Your task to perform on an android device: turn off notifications in google photos Image 0: 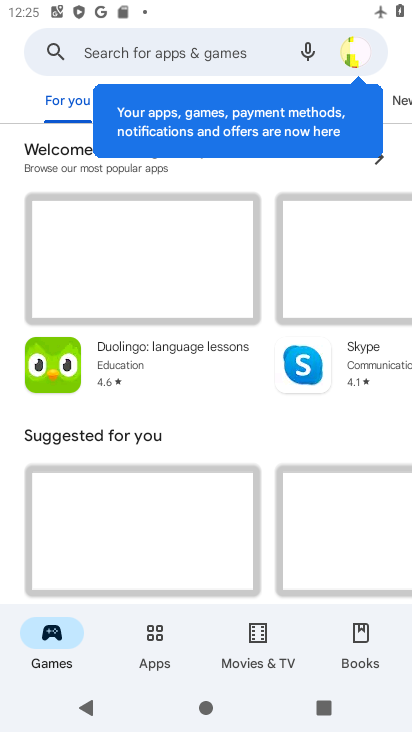
Step 0: press home button
Your task to perform on an android device: turn off notifications in google photos Image 1: 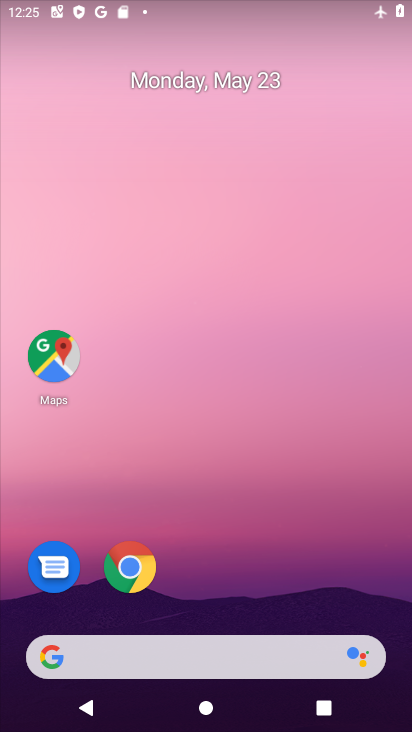
Step 1: drag from (219, 617) to (274, 123)
Your task to perform on an android device: turn off notifications in google photos Image 2: 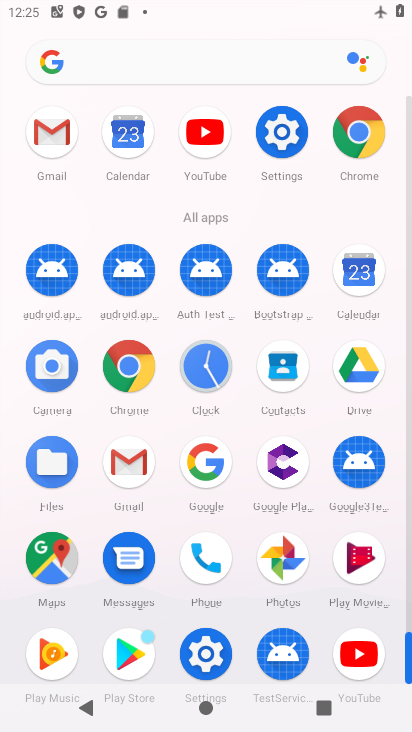
Step 2: click (295, 573)
Your task to perform on an android device: turn off notifications in google photos Image 3: 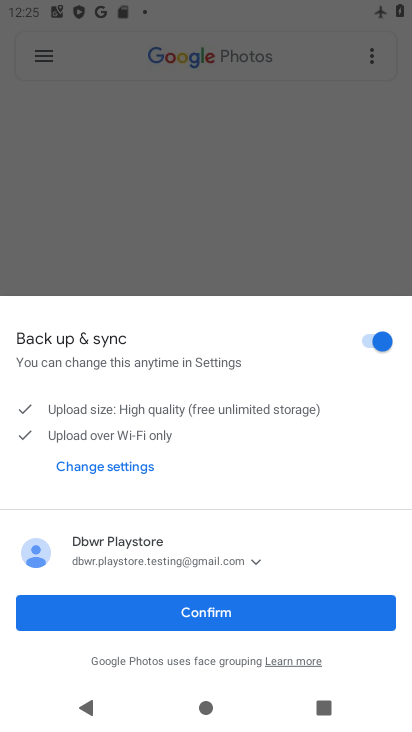
Step 3: click (289, 611)
Your task to perform on an android device: turn off notifications in google photos Image 4: 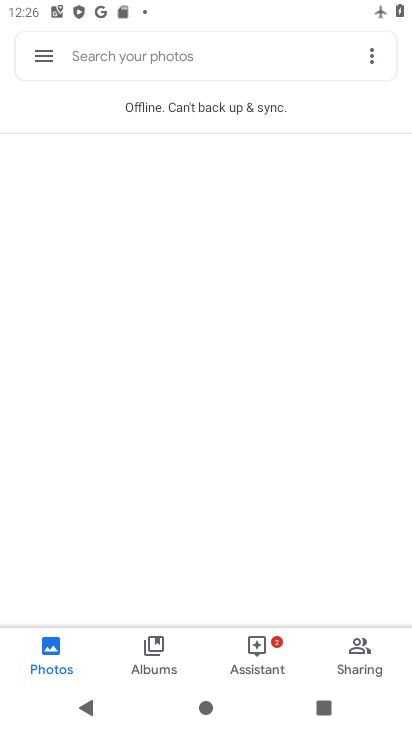
Step 4: click (45, 61)
Your task to perform on an android device: turn off notifications in google photos Image 5: 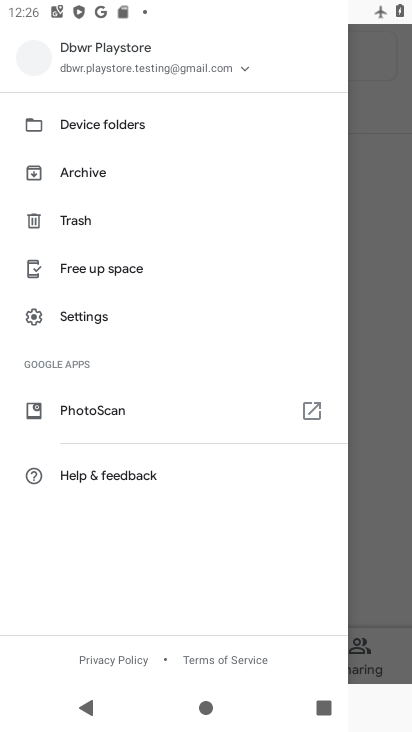
Step 5: click (110, 302)
Your task to perform on an android device: turn off notifications in google photos Image 6: 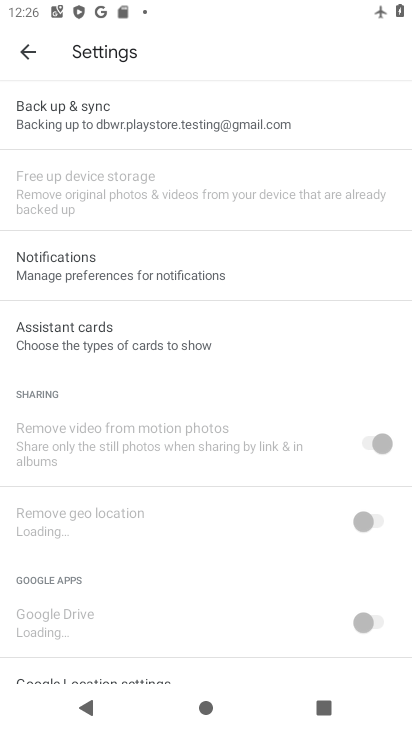
Step 6: click (102, 282)
Your task to perform on an android device: turn off notifications in google photos Image 7: 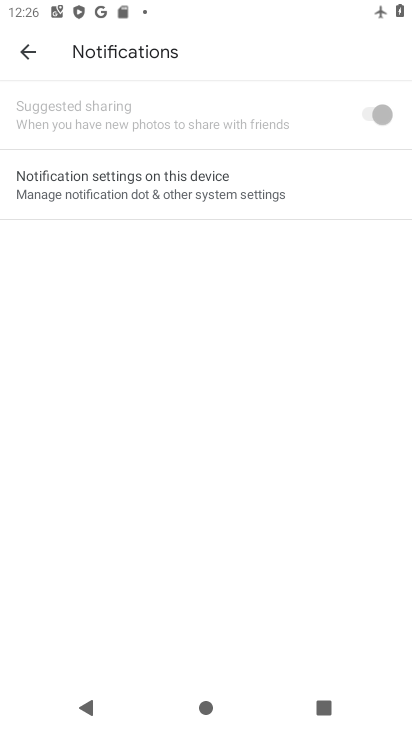
Step 7: click (160, 180)
Your task to perform on an android device: turn off notifications in google photos Image 8: 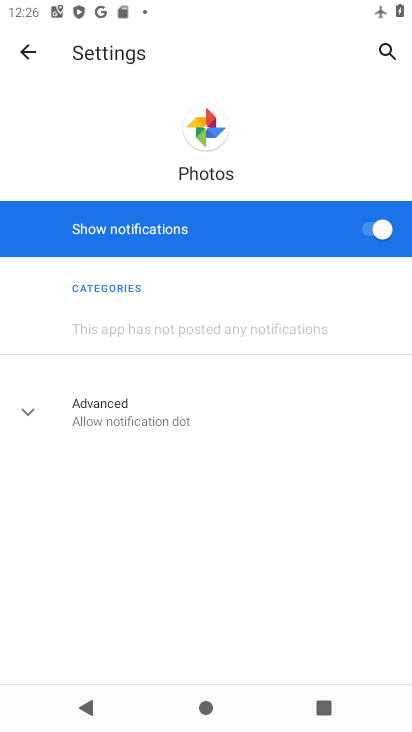
Step 8: click (370, 235)
Your task to perform on an android device: turn off notifications in google photos Image 9: 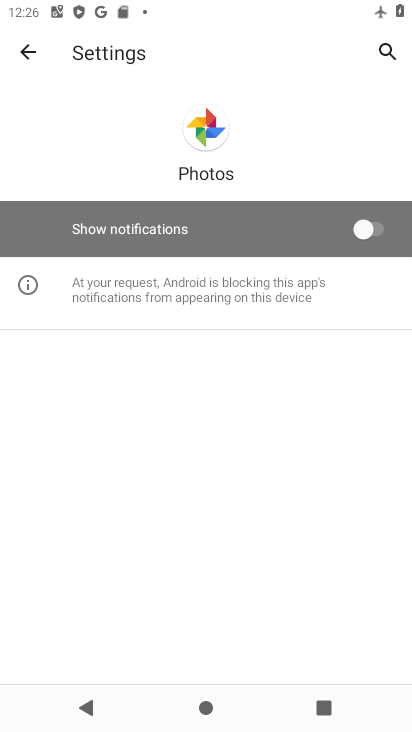
Step 9: task complete